Your task to perform on an android device: change keyboard looks Image 0: 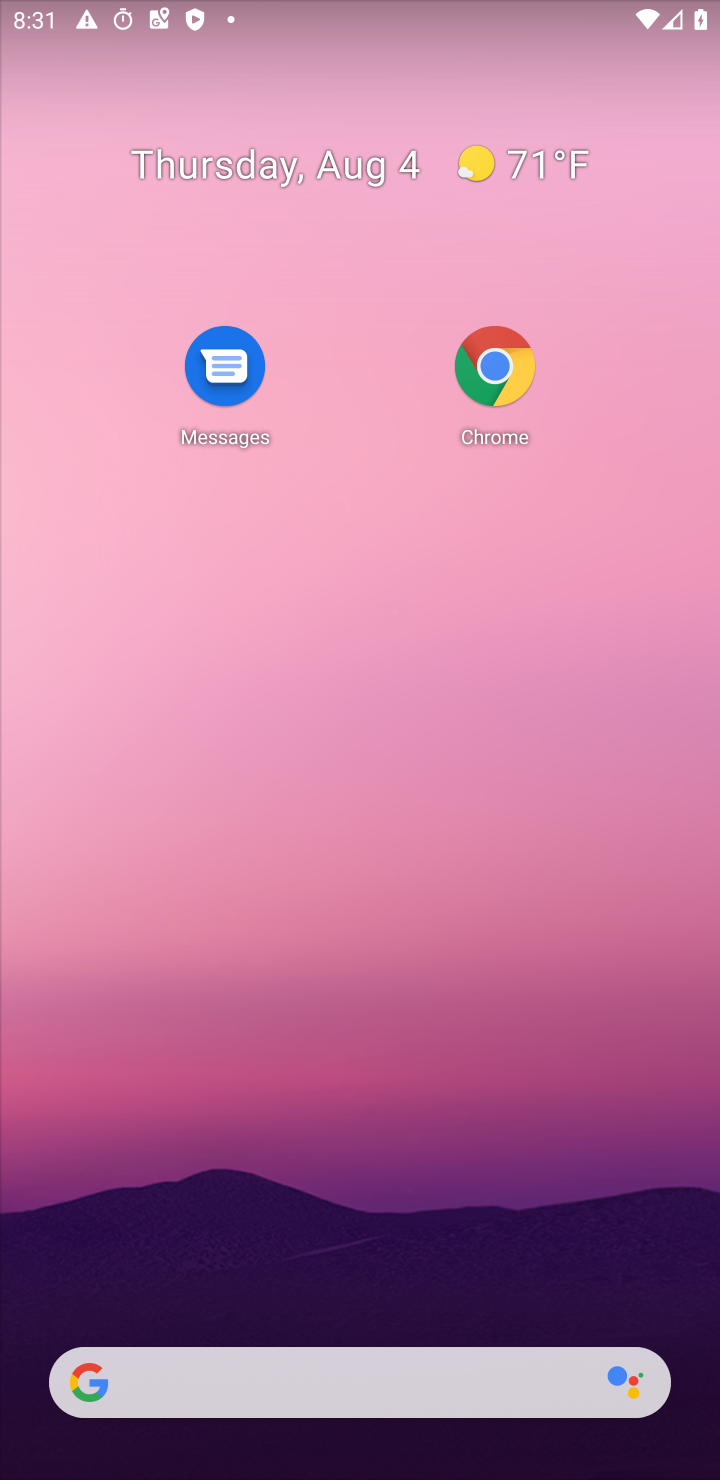
Step 0: drag from (388, 1303) to (326, 485)
Your task to perform on an android device: change keyboard looks Image 1: 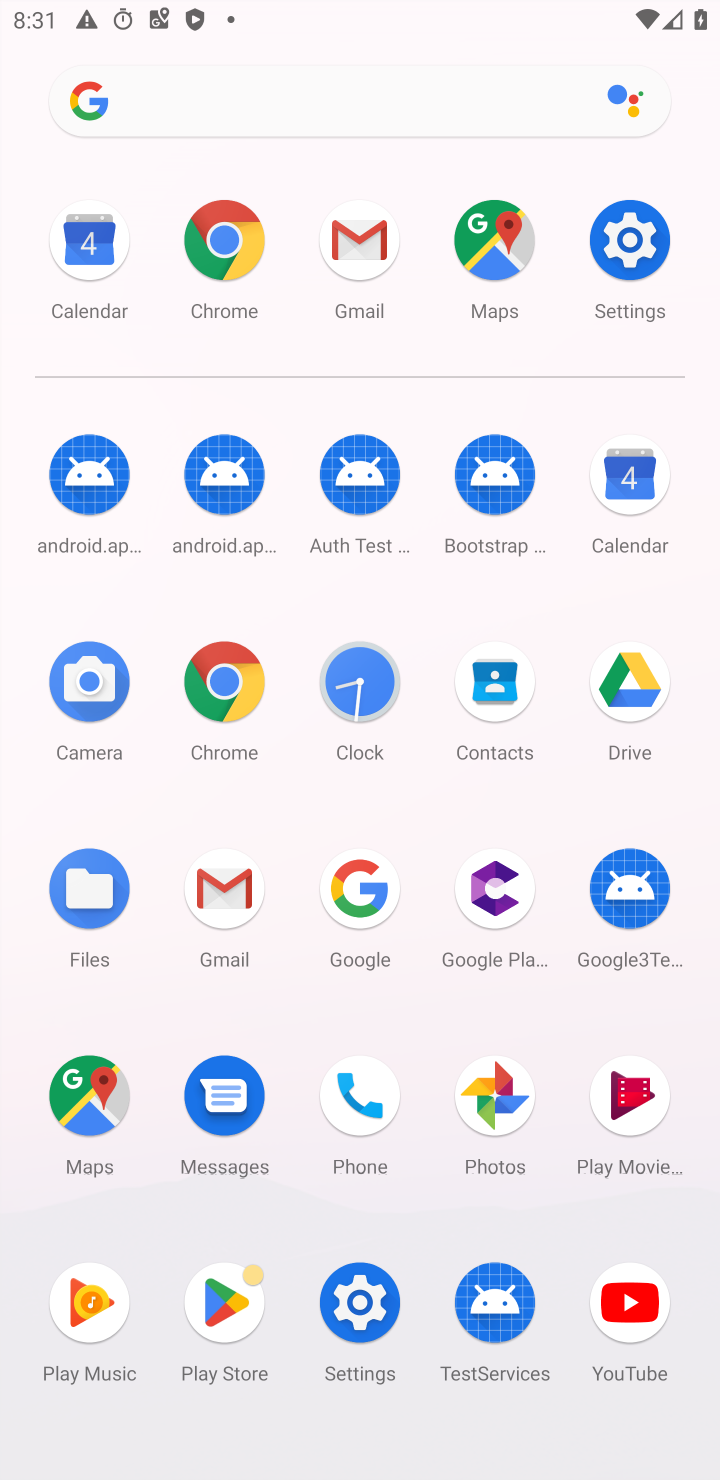
Step 1: click (610, 237)
Your task to perform on an android device: change keyboard looks Image 2: 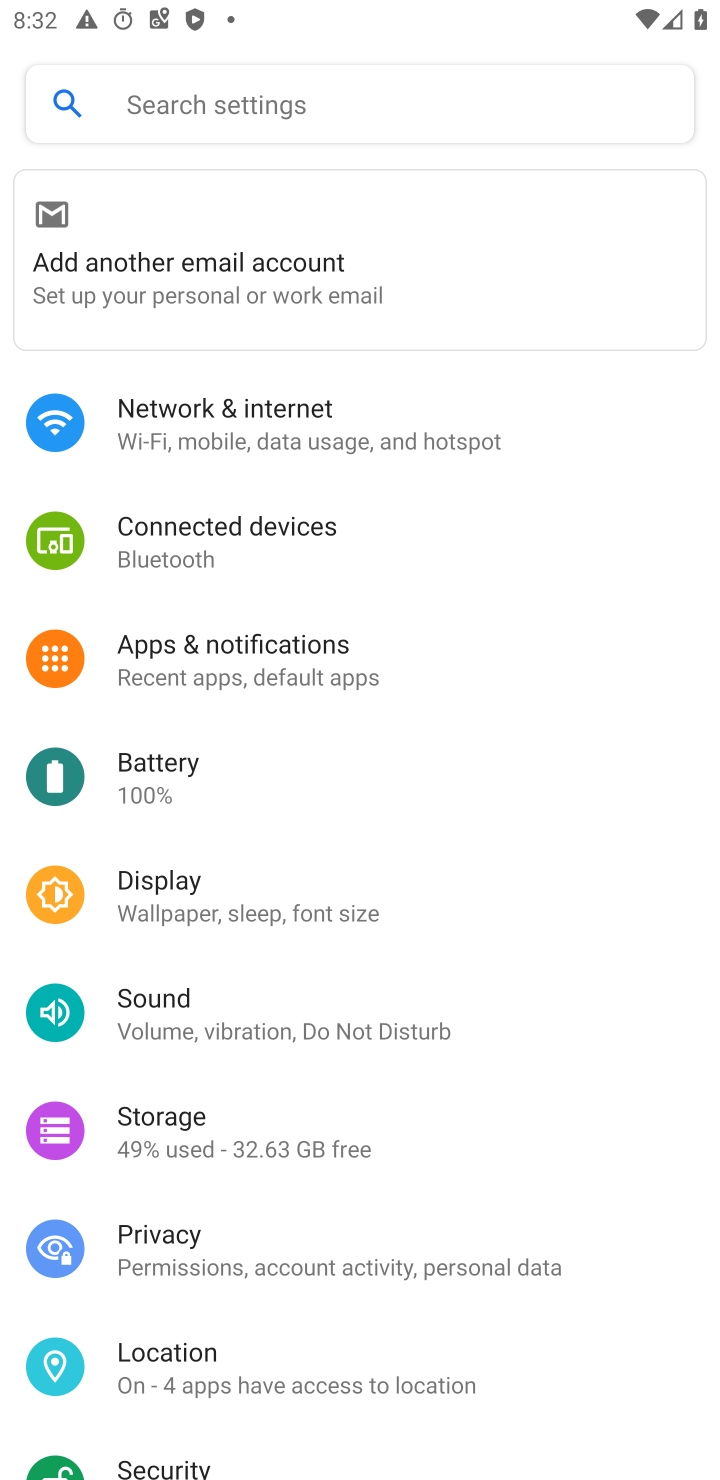
Step 2: click (243, 99)
Your task to perform on an android device: change keyboard looks Image 3: 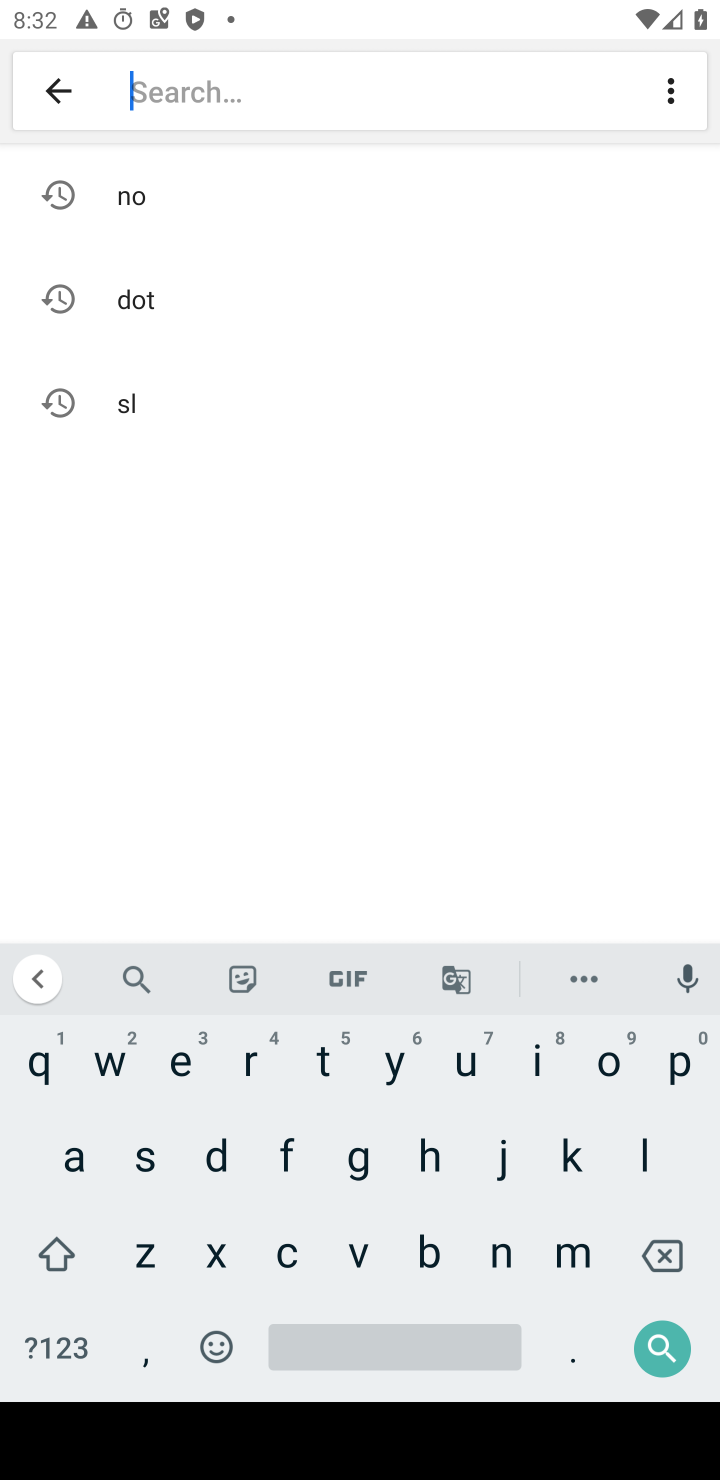
Step 3: click (566, 1156)
Your task to perform on an android device: change keyboard looks Image 4: 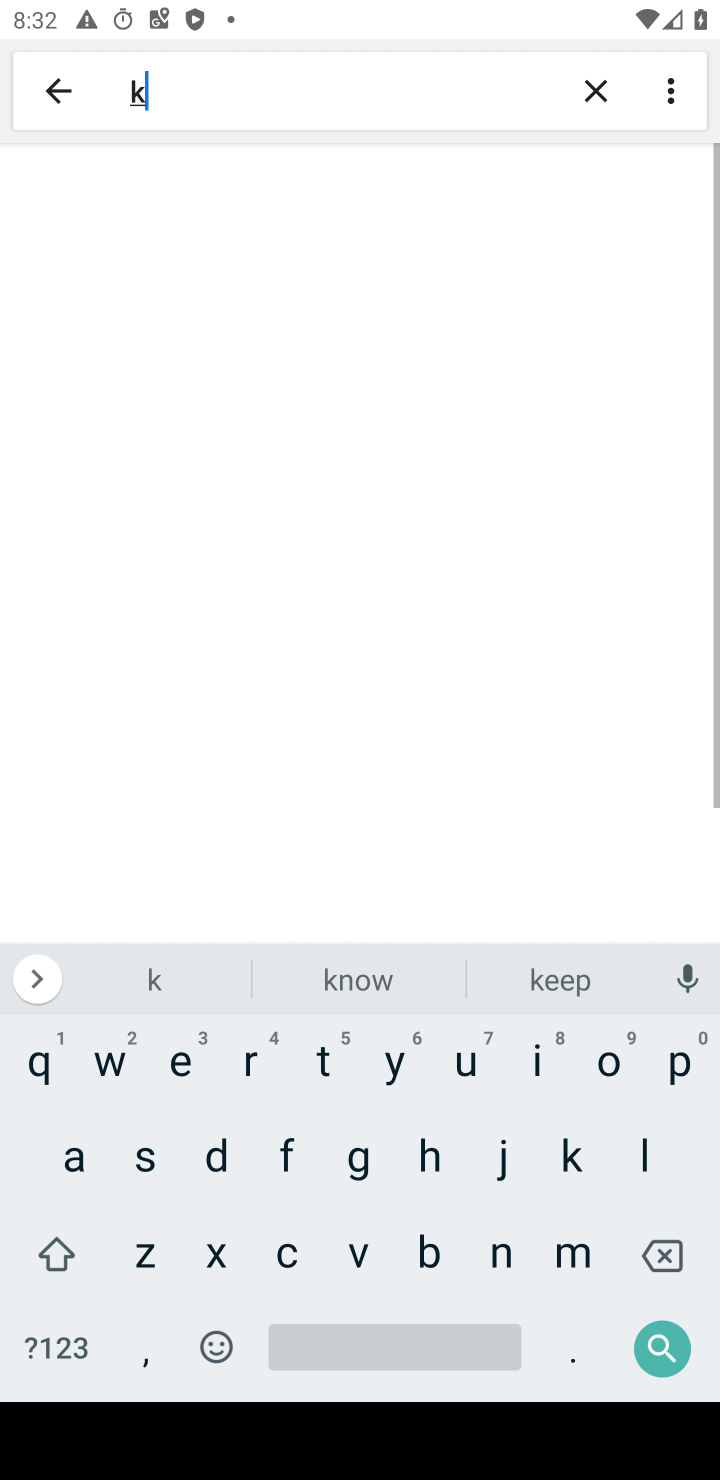
Step 4: click (172, 1054)
Your task to perform on an android device: change keyboard looks Image 5: 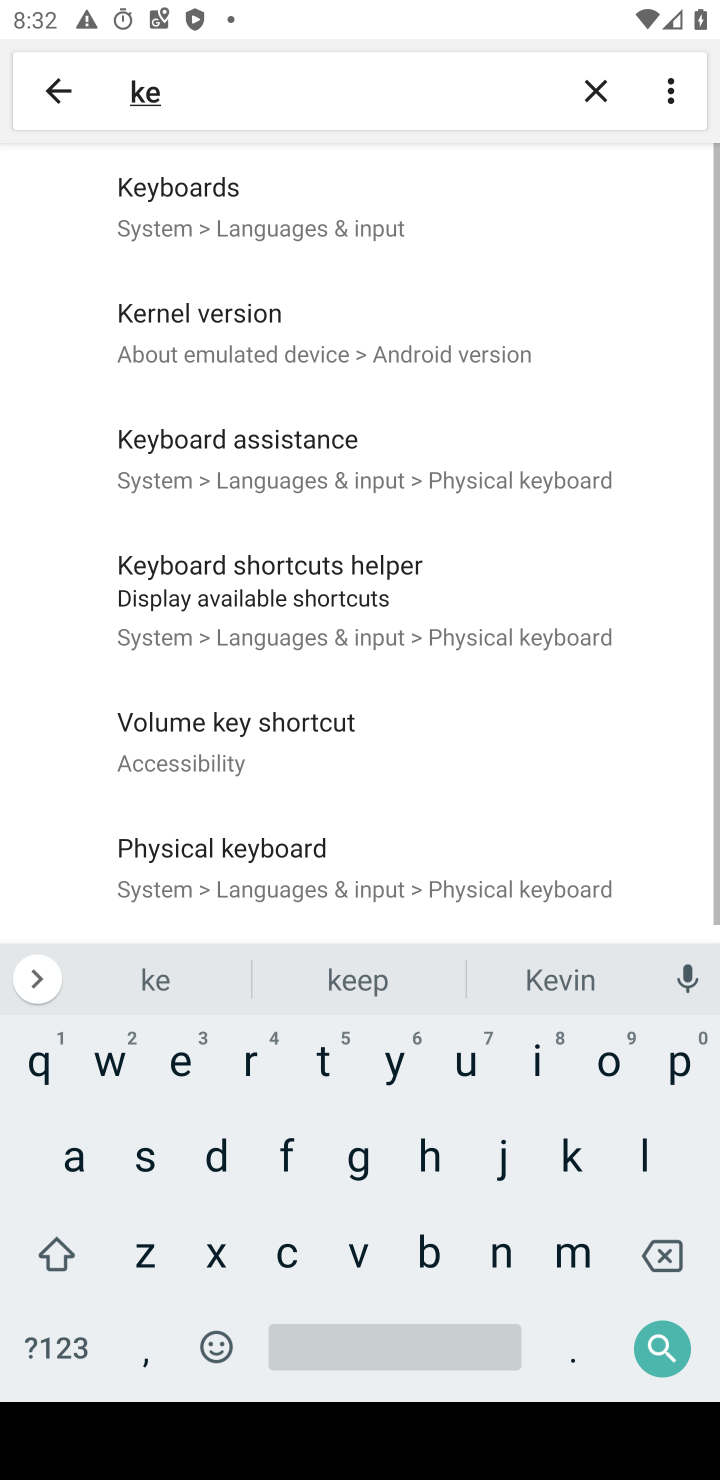
Step 5: click (209, 190)
Your task to perform on an android device: change keyboard looks Image 6: 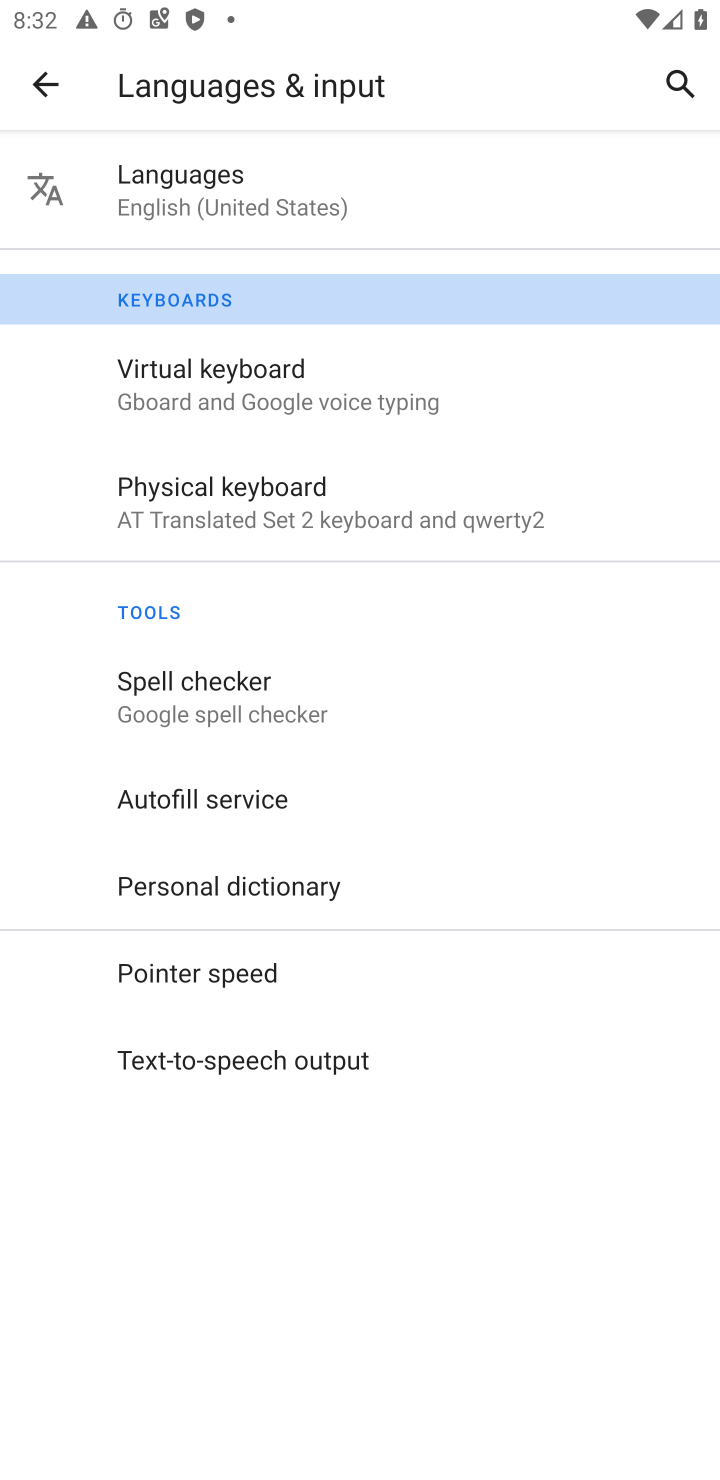
Step 6: click (202, 411)
Your task to perform on an android device: change keyboard looks Image 7: 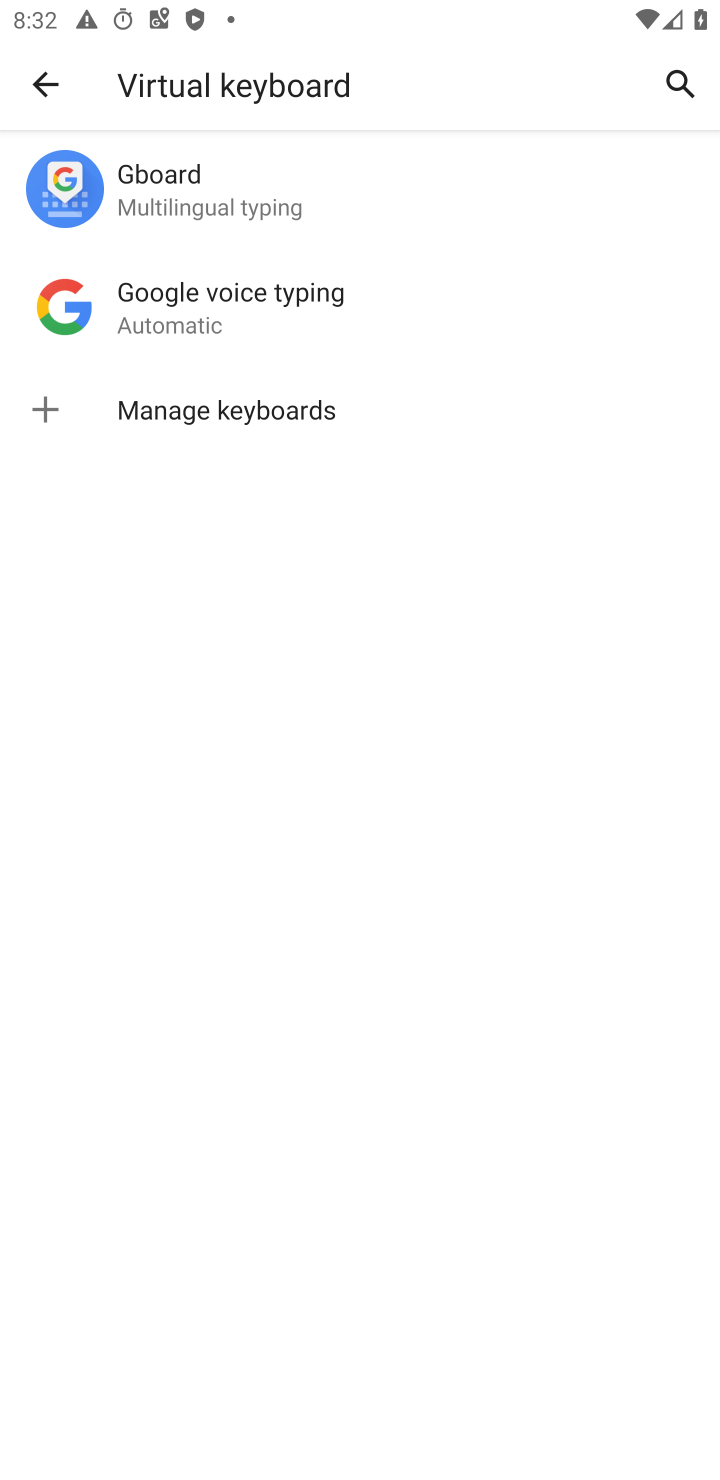
Step 7: click (220, 204)
Your task to perform on an android device: change keyboard looks Image 8: 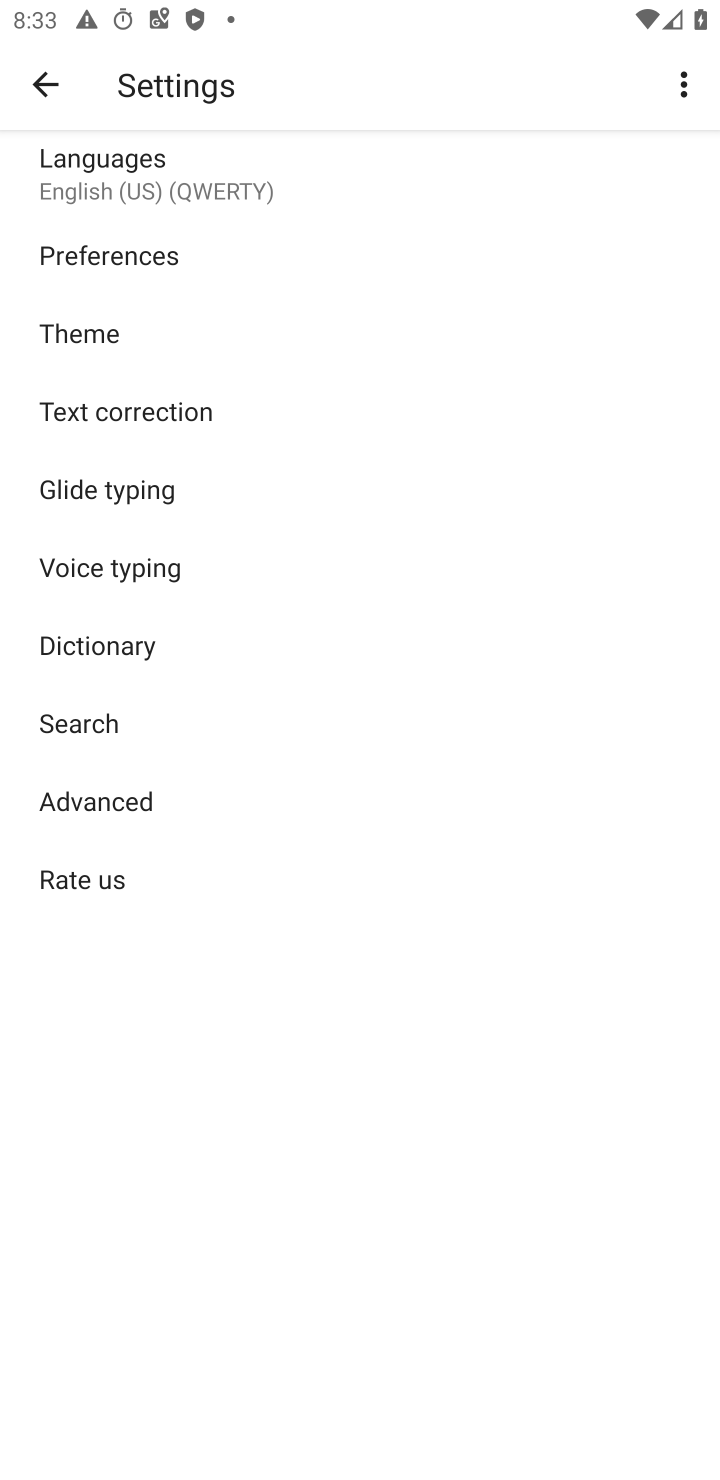
Step 8: click (104, 313)
Your task to perform on an android device: change keyboard looks Image 9: 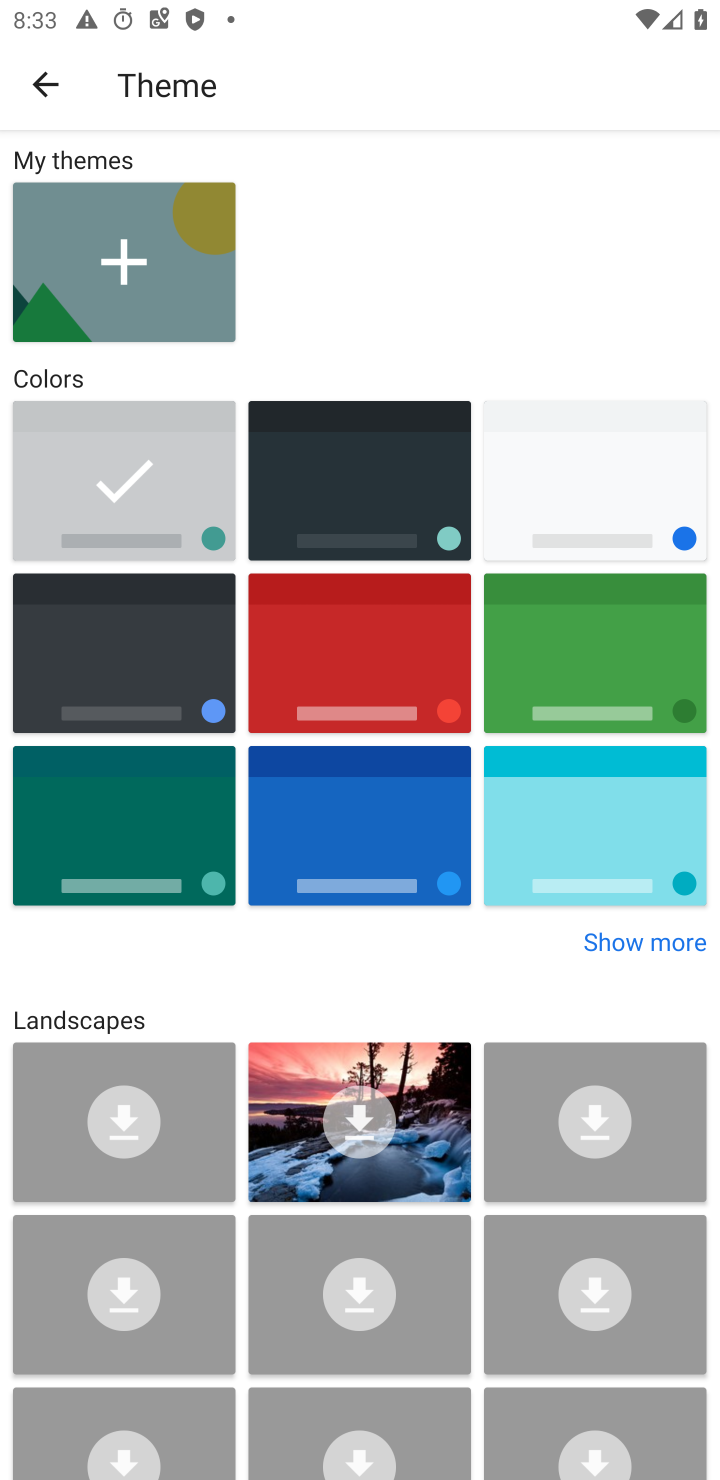
Step 9: click (273, 708)
Your task to perform on an android device: change keyboard looks Image 10: 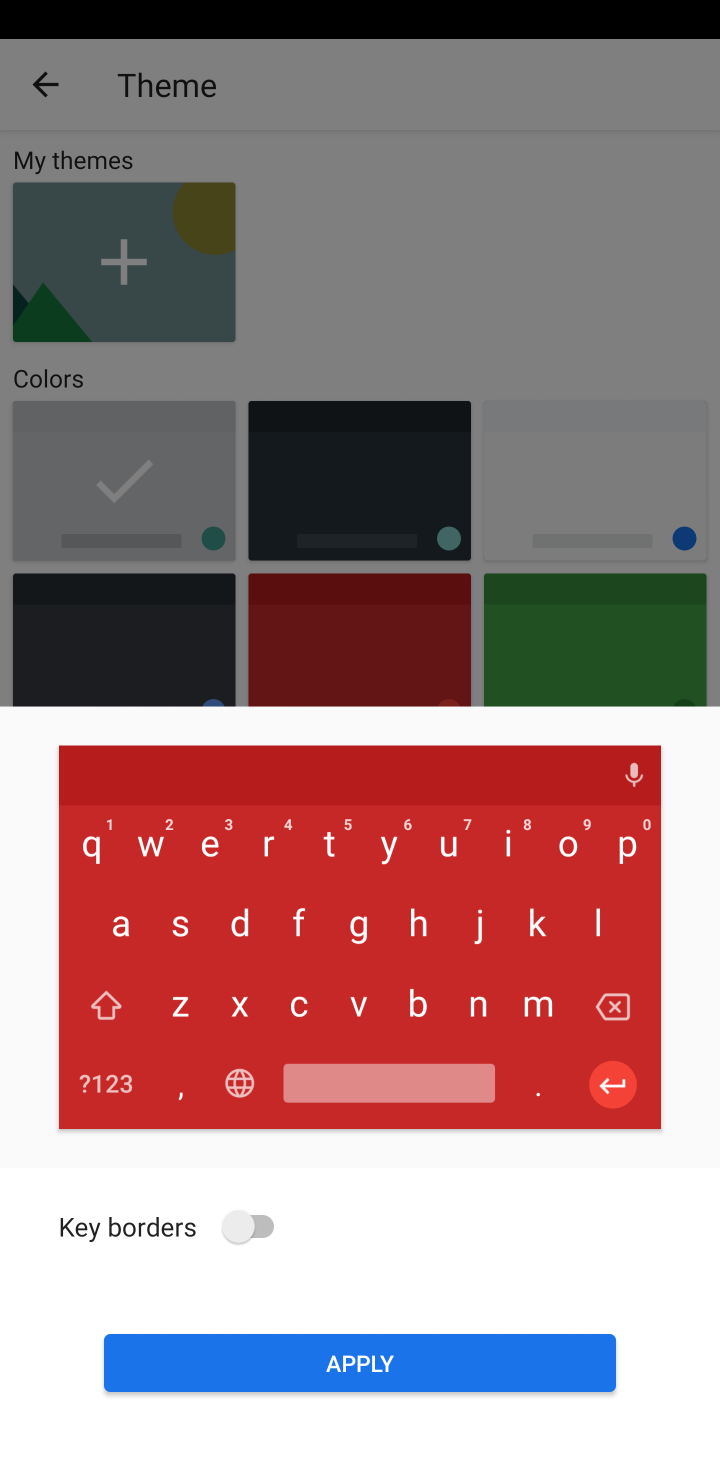
Step 10: click (316, 1376)
Your task to perform on an android device: change keyboard looks Image 11: 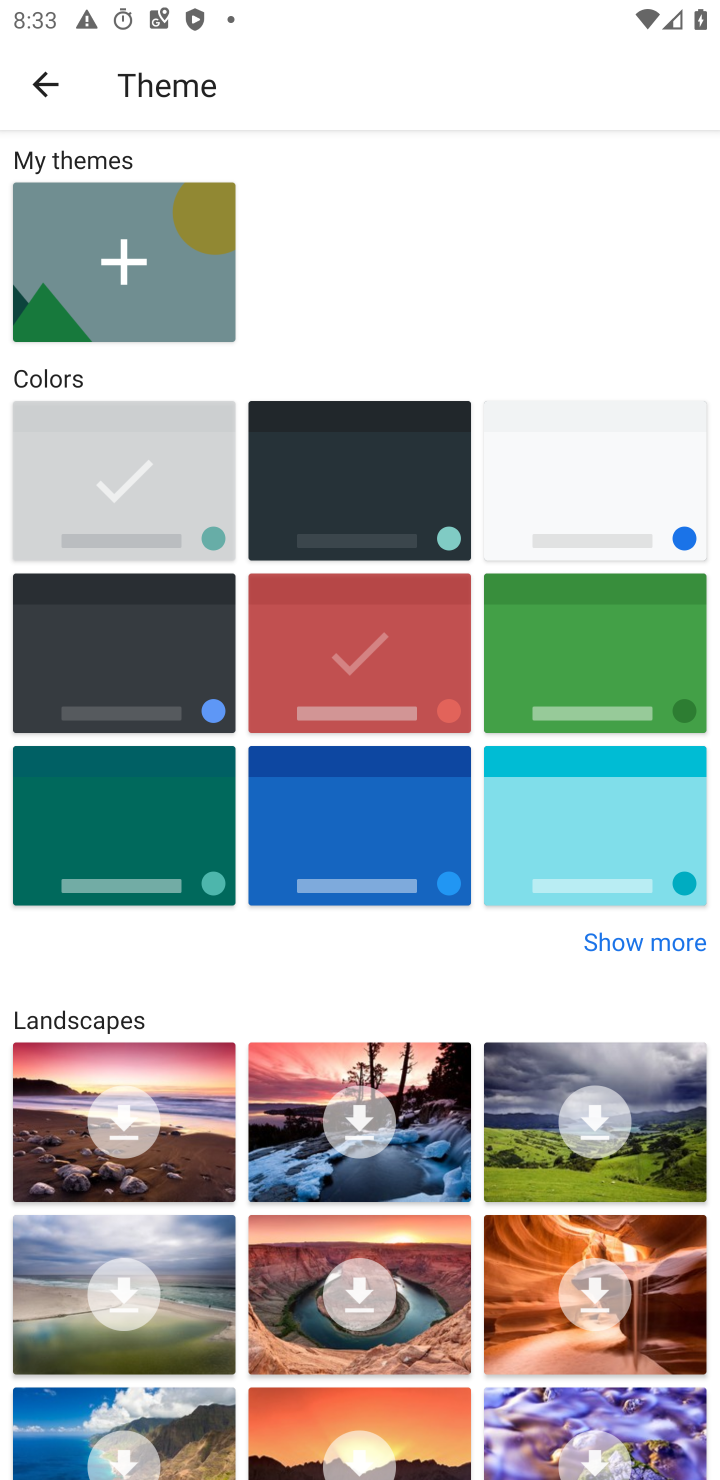
Step 11: task complete